Your task to perform on an android device: Go to settings Image 0: 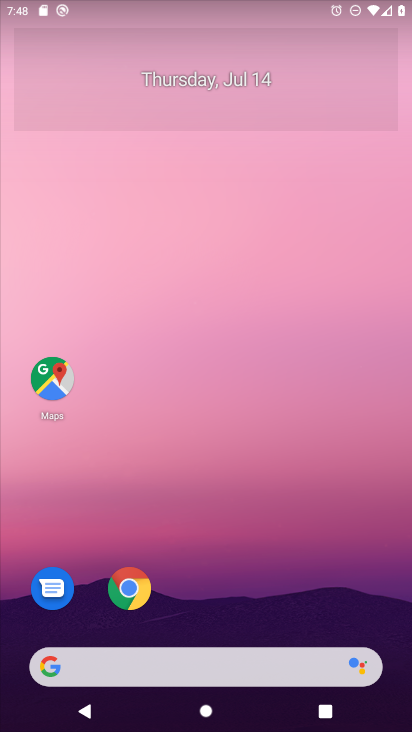
Step 0: drag from (27, 709) to (278, 96)
Your task to perform on an android device: Go to settings Image 1: 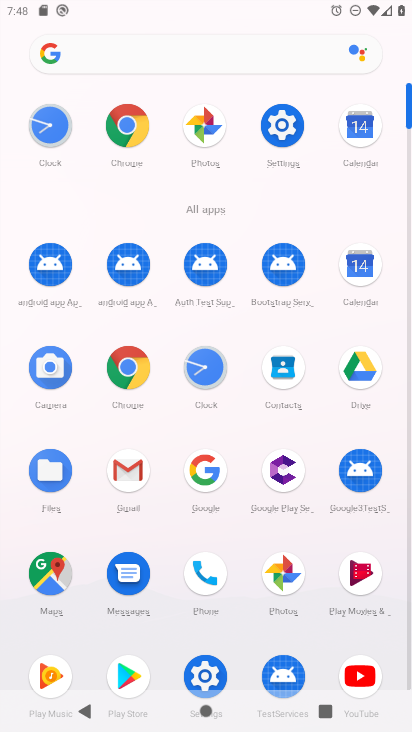
Step 1: click (207, 658)
Your task to perform on an android device: Go to settings Image 2: 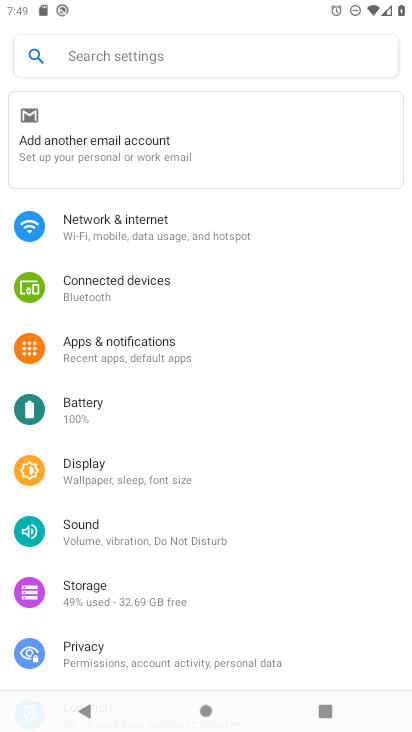
Step 2: task complete